Your task to perform on an android device: see tabs open on other devices in the chrome app Image 0: 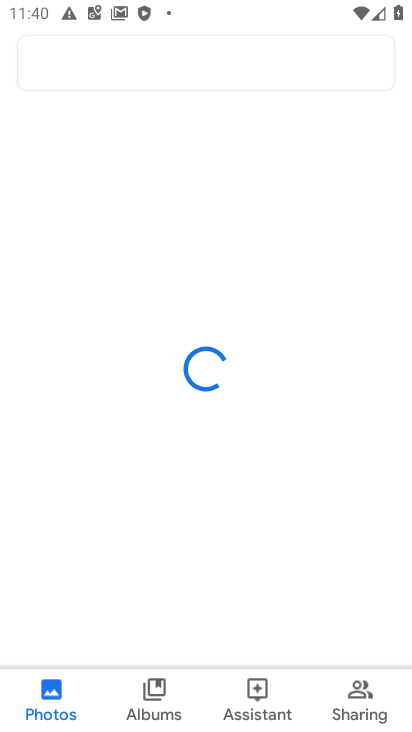
Step 0: press home button
Your task to perform on an android device: see tabs open on other devices in the chrome app Image 1: 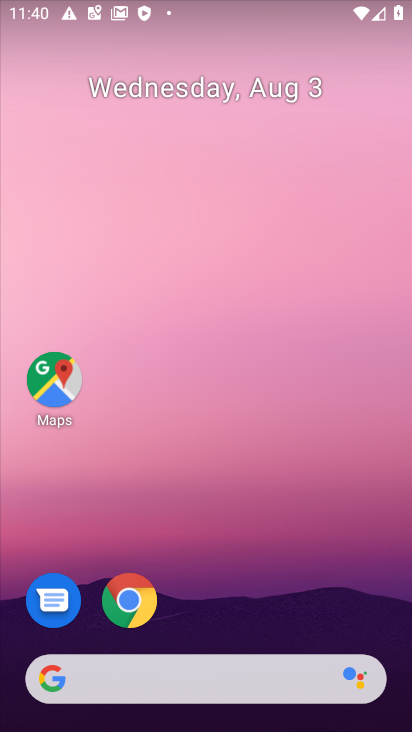
Step 1: click (135, 611)
Your task to perform on an android device: see tabs open on other devices in the chrome app Image 2: 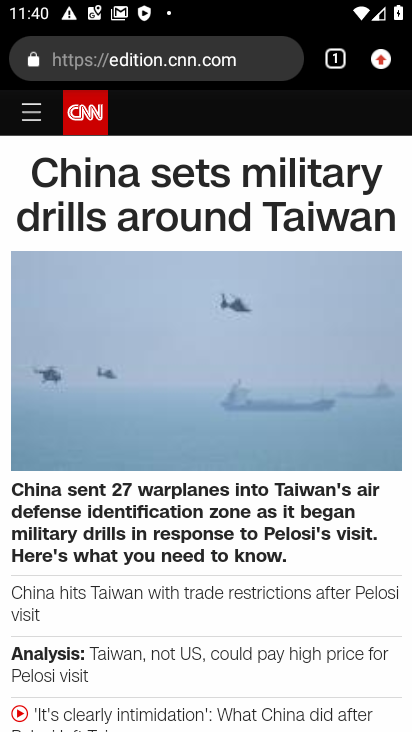
Step 2: task complete